Your task to perform on an android device: Open the map Image 0: 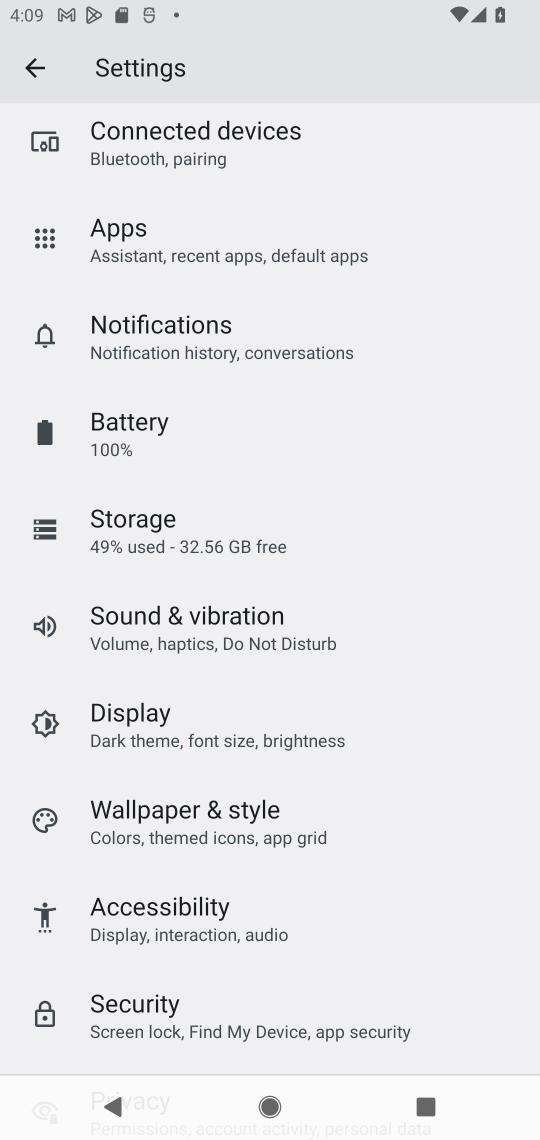
Step 0: click (19, 76)
Your task to perform on an android device: Open the map Image 1: 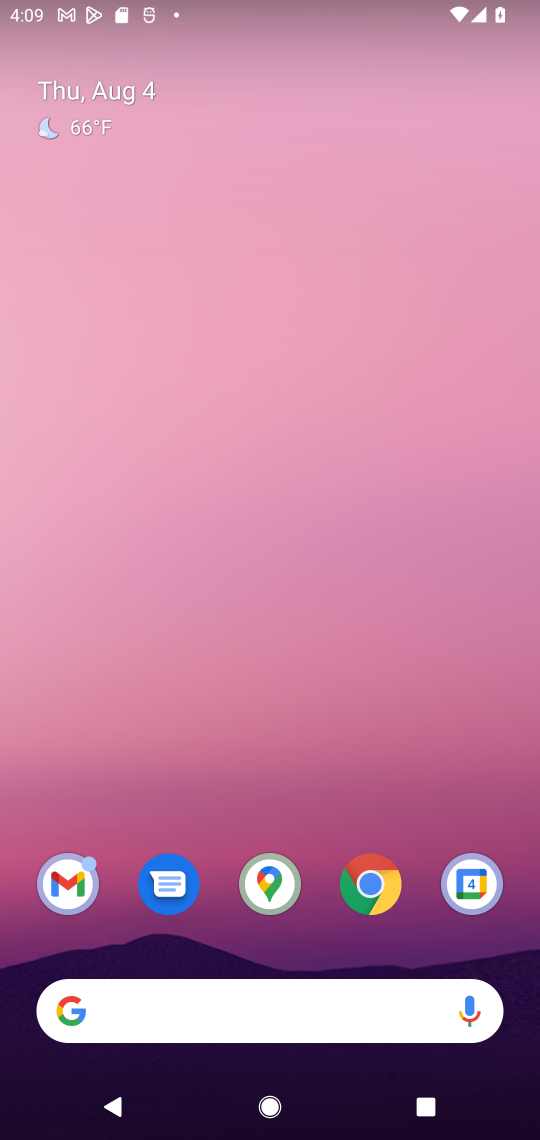
Step 1: click (276, 874)
Your task to perform on an android device: Open the map Image 2: 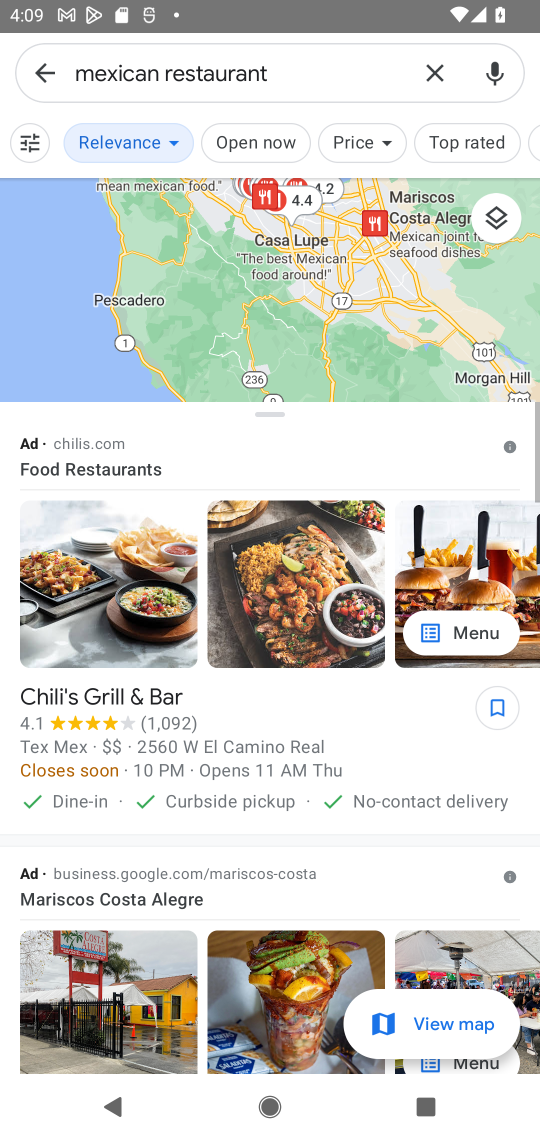
Step 2: task complete